Your task to perform on an android device: Open CNN.com Image 0: 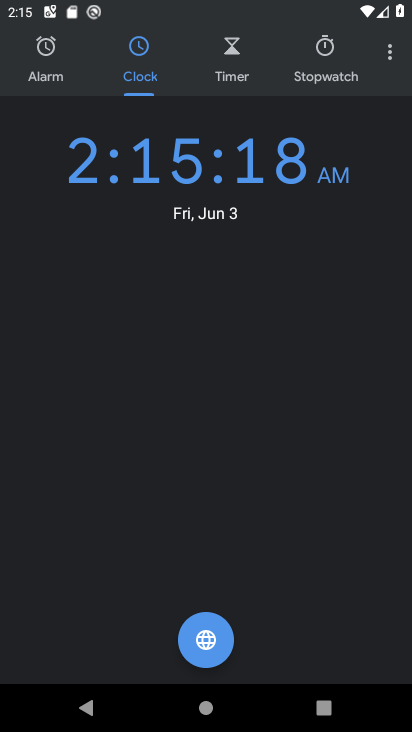
Step 0: press home button
Your task to perform on an android device: Open CNN.com Image 1: 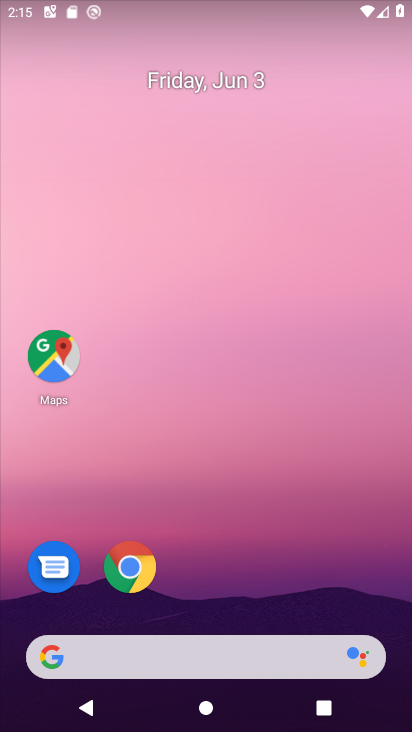
Step 1: drag from (168, 529) to (193, 270)
Your task to perform on an android device: Open CNN.com Image 2: 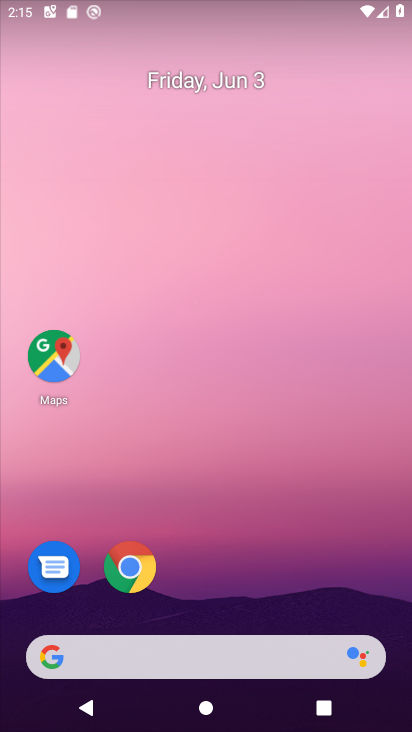
Step 2: drag from (220, 570) to (271, 188)
Your task to perform on an android device: Open CNN.com Image 3: 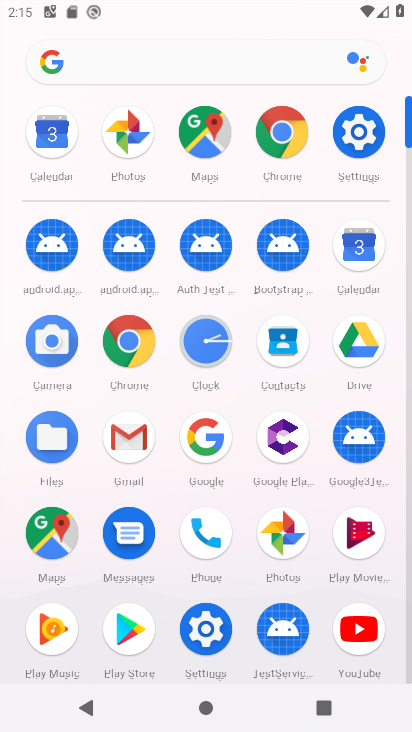
Step 3: click (267, 136)
Your task to perform on an android device: Open CNN.com Image 4: 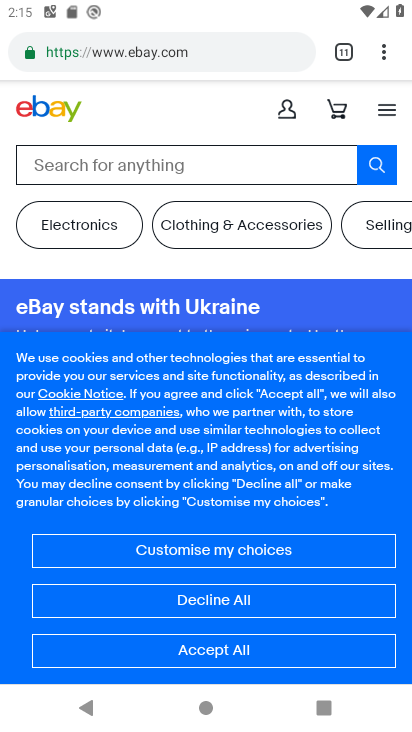
Step 4: click (390, 48)
Your task to perform on an android device: Open CNN.com Image 5: 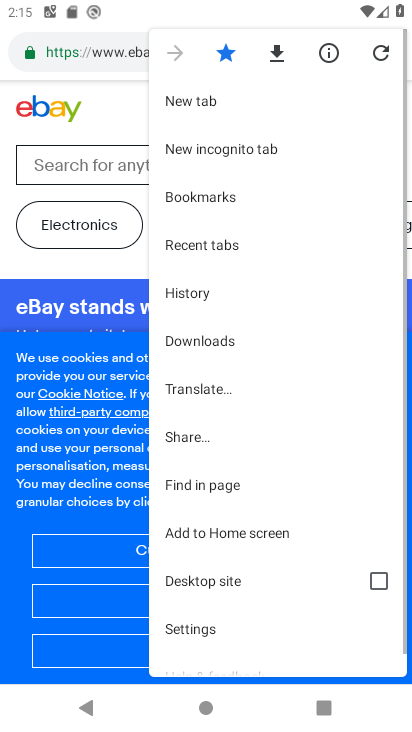
Step 5: click (203, 105)
Your task to perform on an android device: Open CNN.com Image 6: 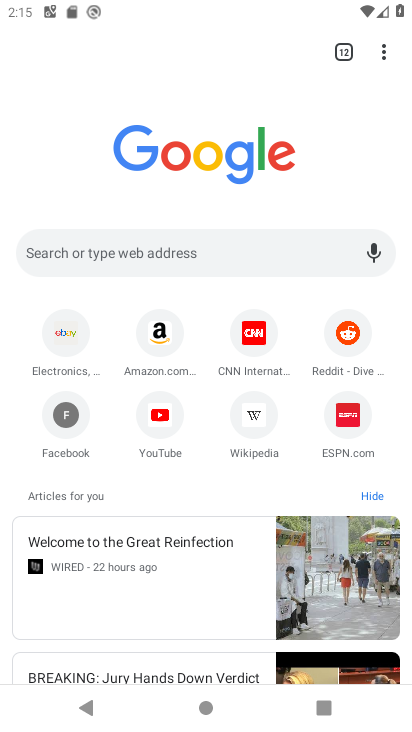
Step 6: click (132, 257)
Your task to perform on an android device: Open CNN.com Image 7: 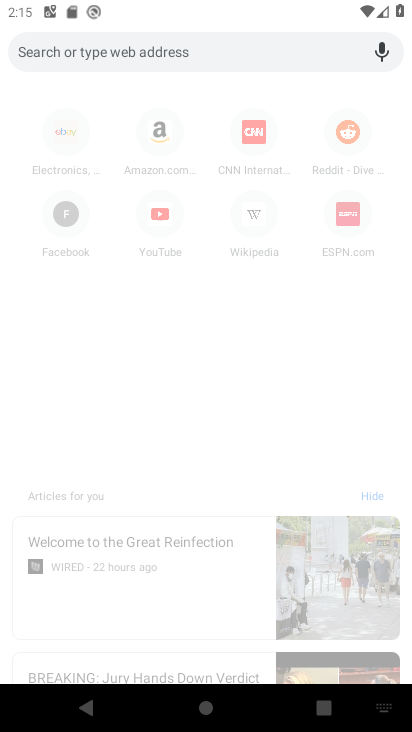
Step 7: type "CNN.com"
Your task to perform on an android device: Open CNN.com Image 8: 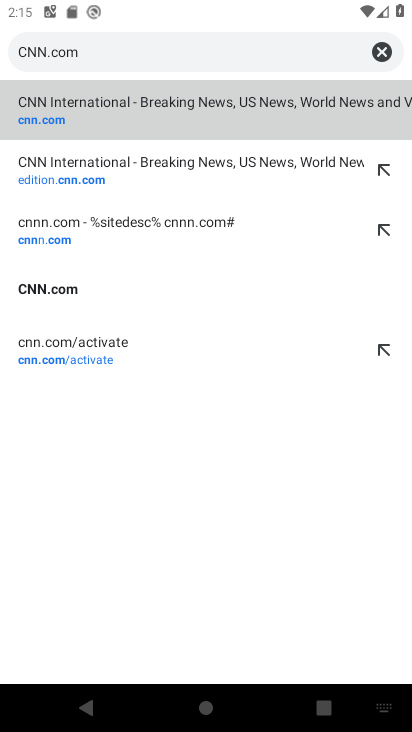
Step 8: click (175, 98)
Your task to perform on an android device: Open CNN.com Image 9: 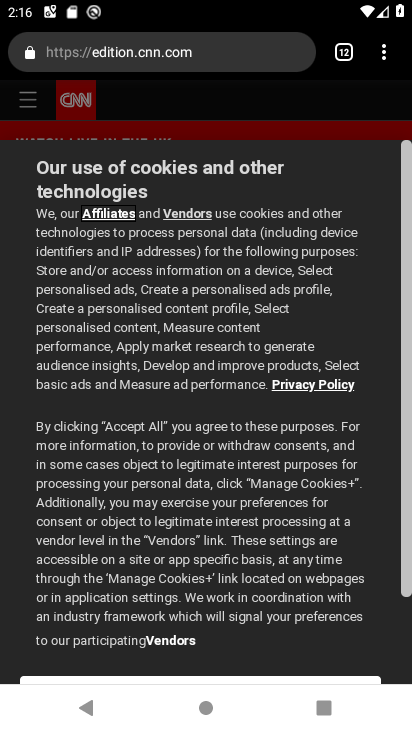
Step 9: task complete